Your task to perform on an android device: turn off notifications in google photos Image 0: 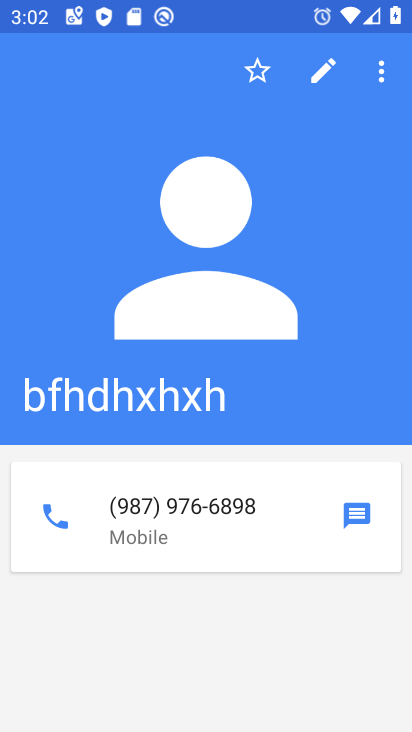
Step 0: press home button
Your task to perform on an android device: turn off notifications in google photos Image 1: 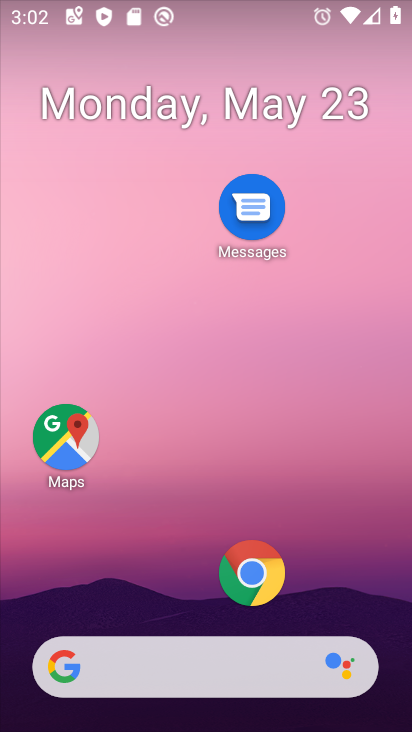
Step 1: drag from (349, 671) to (375, 87)
Your task to perform on an android device: turn off notifications in google photos Image 2: 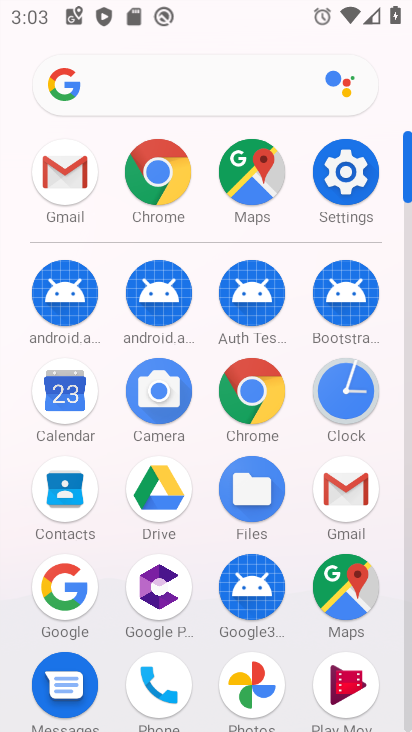
Step 2: click (262, 694)
Your task to perform on an android device: turn off notifications in google photos Image 3: 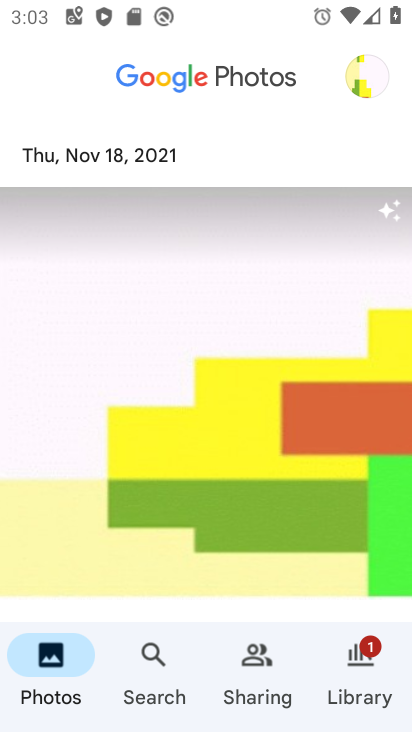
Step 3: click (361, 72)
Your task to perform on an android device: turn off notifications in google photos Image 4: 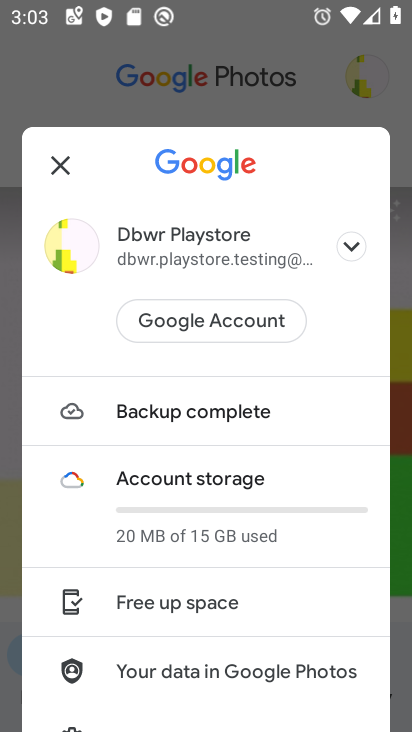
Step 4: drag from (255, 610) to (292, 100)
Your task to perform on an android device: turn off notifications in google photos Image 5: 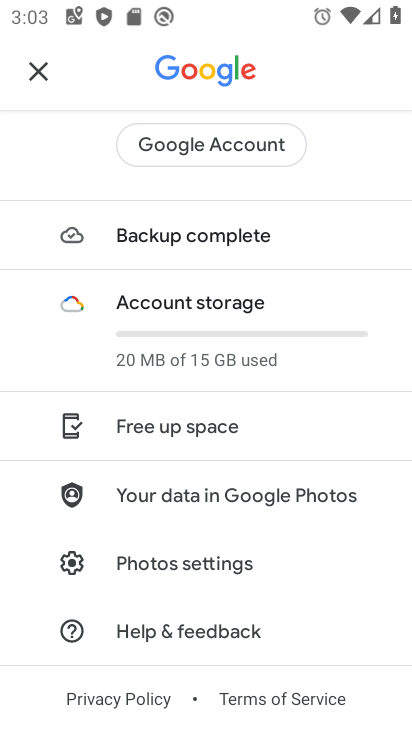
Step 5: click (227, 557)
Your task to perform on an android device: turn off notifications in google photos Image 6: 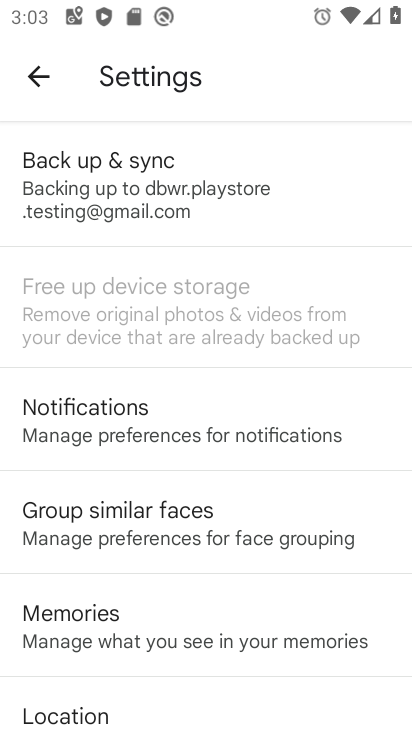
Step 6: click (173, 443)
Your task to perform on an android device: turn off notifications in google photos Image 7: 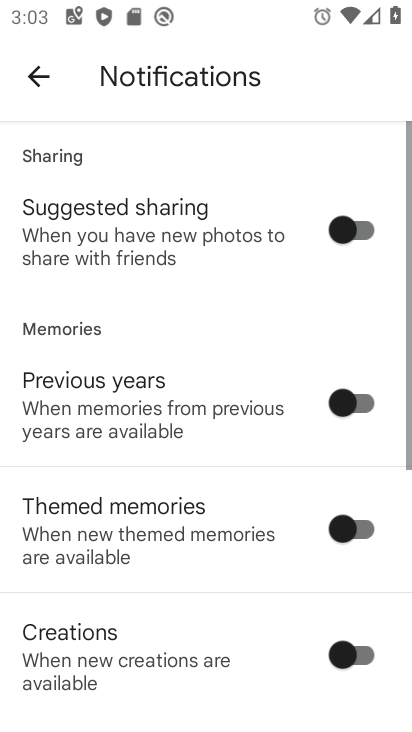
Step 7: drag from (210, 699) to (278, 71)
Your task to perform on an android device: turn off notifications in google photos Image 8: 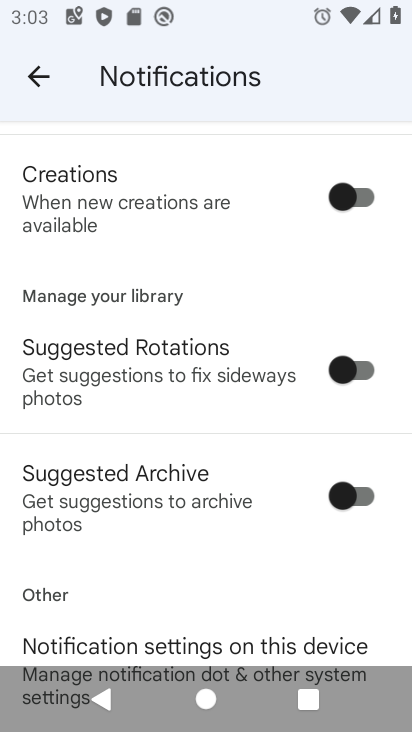
Step 8: click (218, 643)
Your task to perform on an android device: turn off notifications in google photos Image 9: 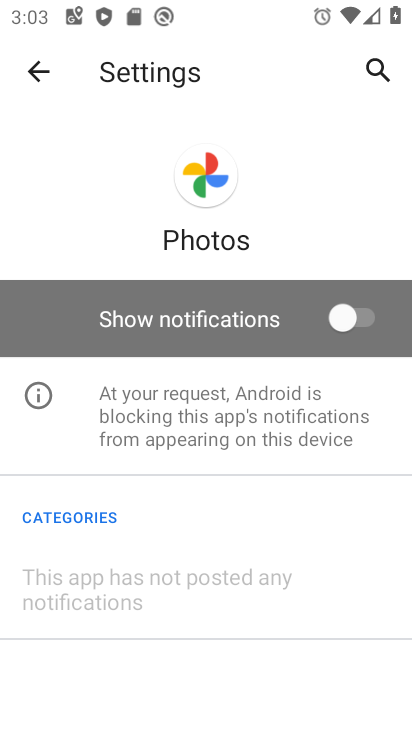
Step 9: task complete